Your task to perform on an android device: Show me productivity apps on the Play Store Image 0: 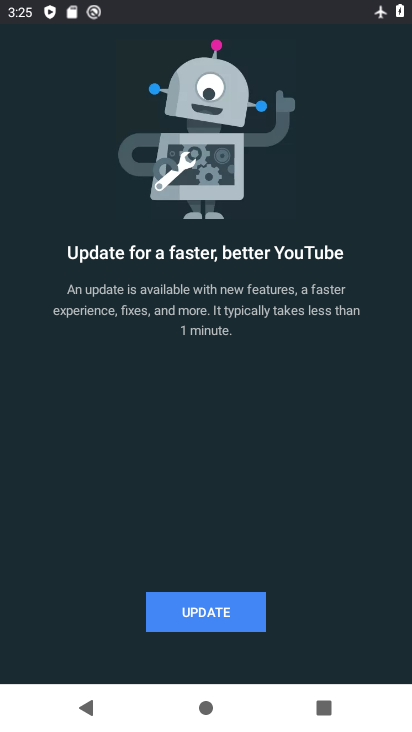
Step 0: press back button
Your task to perform on an android device: Show me productivity apps on the Play Store Image 1: 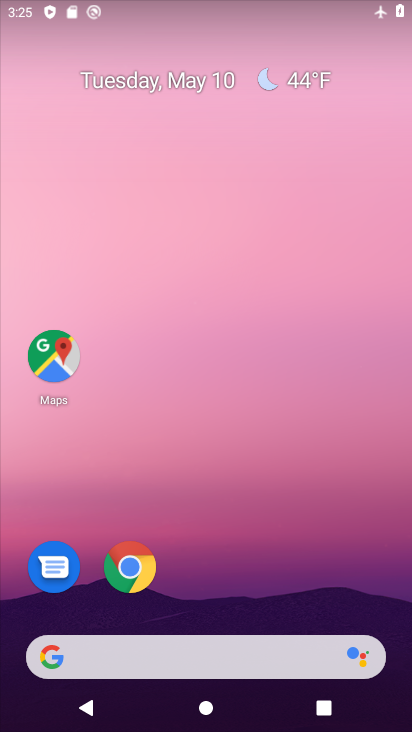
Step 1: drag from (249, 590) to (233, 18)
Your task to perform on an android device: Show me productivity apps on the Play Store Image 2: 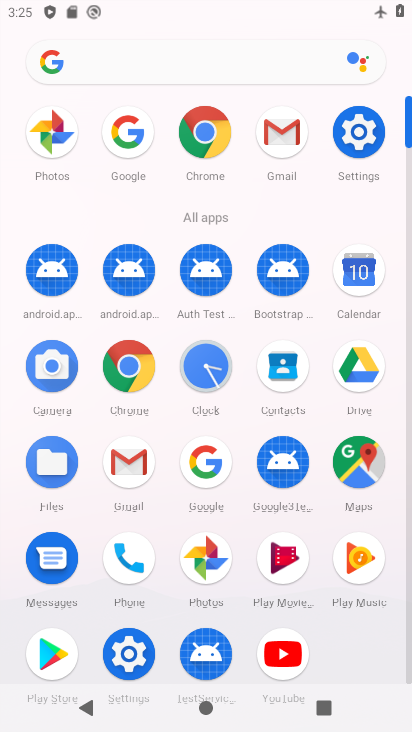
Step 2: click (47, 651)
Your task to perform on an android device: Show me productivity apps on the Play Store Image 3: 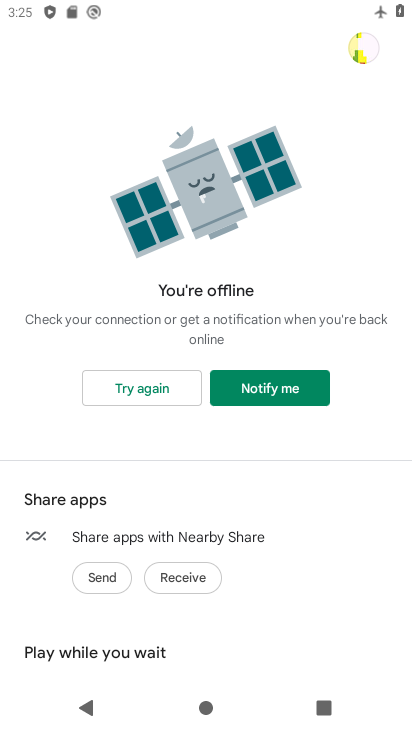
Step 3: click (165, 373)
Your task to perform on an android device: Show me productivity apps on the Play Store Image 4: 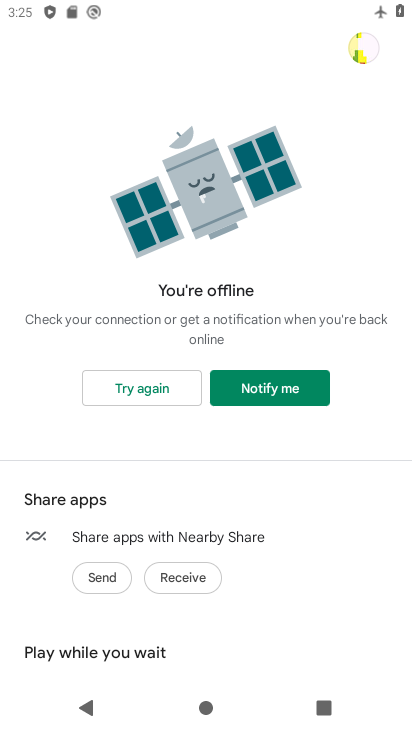
Step 4: task complete